Your task to perform on an android device: change the clock style Image 0: 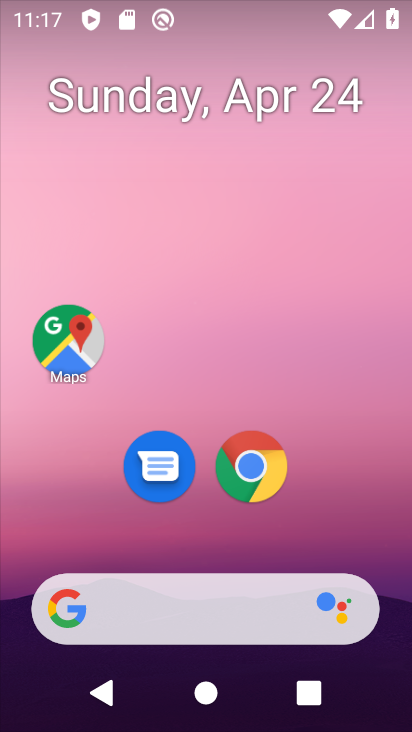
Step 0: drag from (323, 519) to (290, 0)
Your task to perform on an android device: change the clock style Image 1: 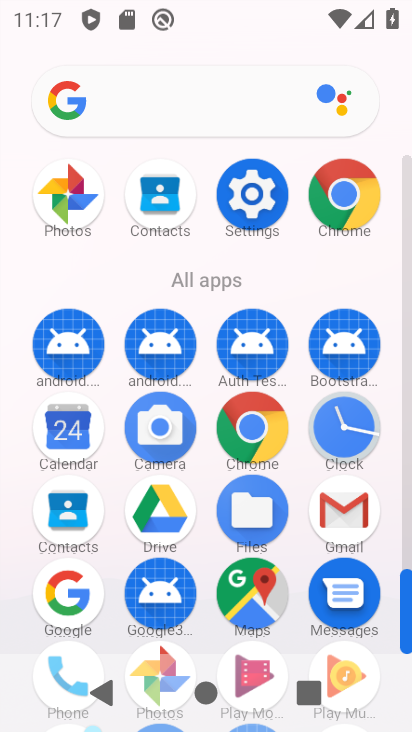
Step 1: click (323, 420)
Your task to perform on an android device: change the clock style Image 2: 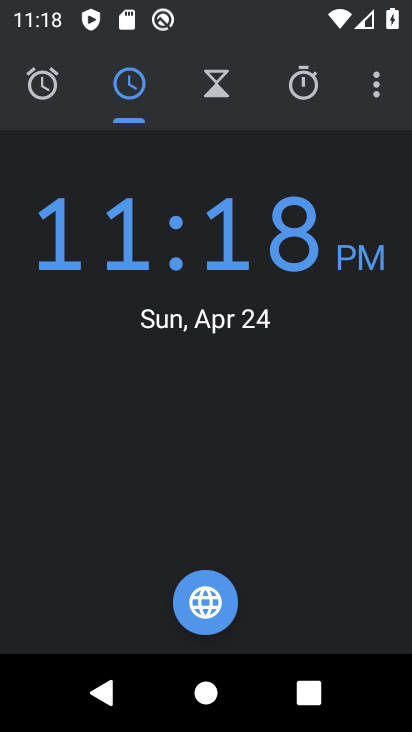
Step 2: click (369, 95)
Your task to perform on an android device: change the clock style Image 3: 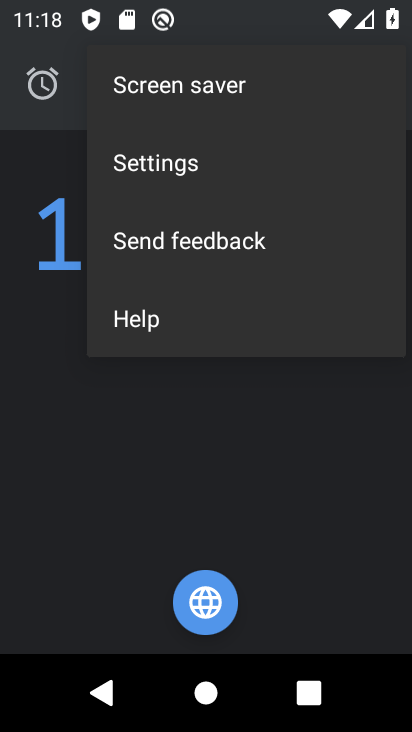
Step 3: click (189, 172)
Your task to perform on an android device: change the clock style Image 4: 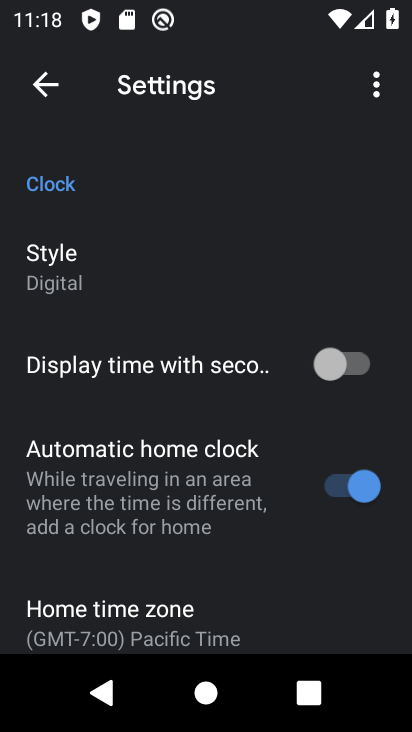
Step 4: click (249, 241)
Your task to perform on an android device: change the clock style Image 5: 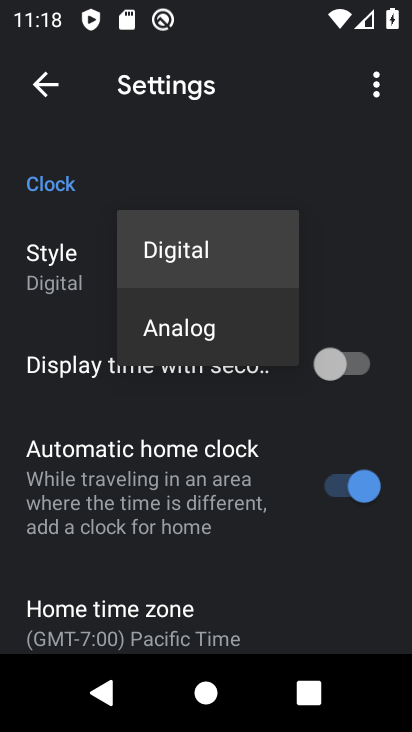
Step 5: click (216, 337)
Your task to perform on an android device: change the clock style Image 6: 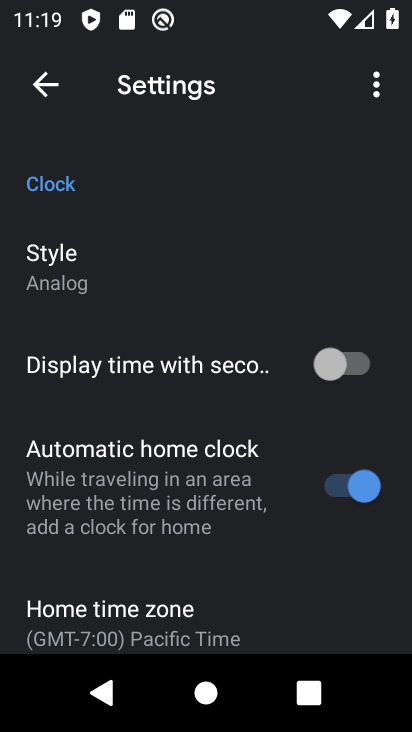
Step 6: task complete